Your task to perform on an android device: check data usage Image 0: 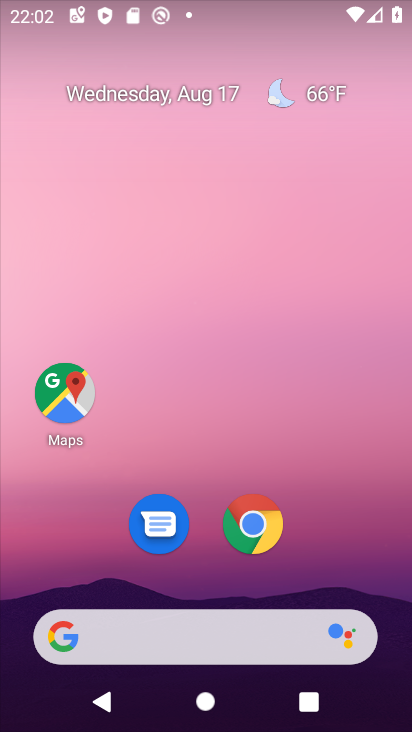
Step 0: drag from (321, 498) to (323, 16)
Your task to perform on an android device: check data usage Image 1: 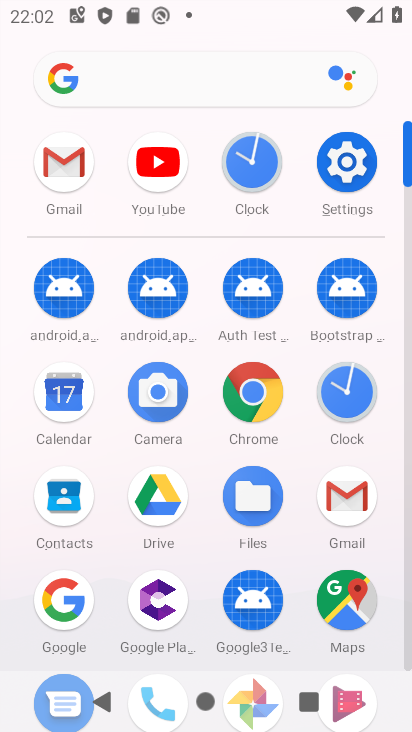
Step 1: click (345, 158)
Your task to perform on an android device: check data usage Image 2: 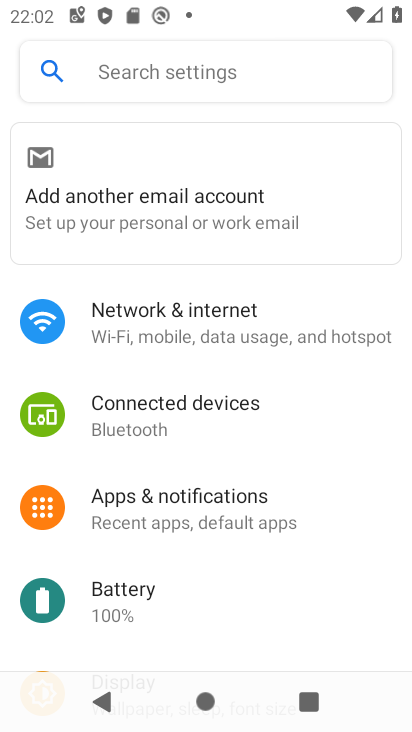
Step 2: click (248, 320)
Your task to perform on an android device: check data usage Image 3: 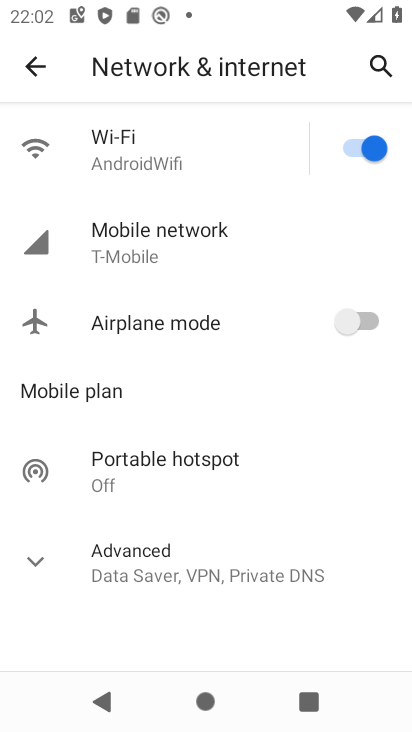
Step 3: click (195, 242)
Your task to perform on an android device: check data usage Image 4: 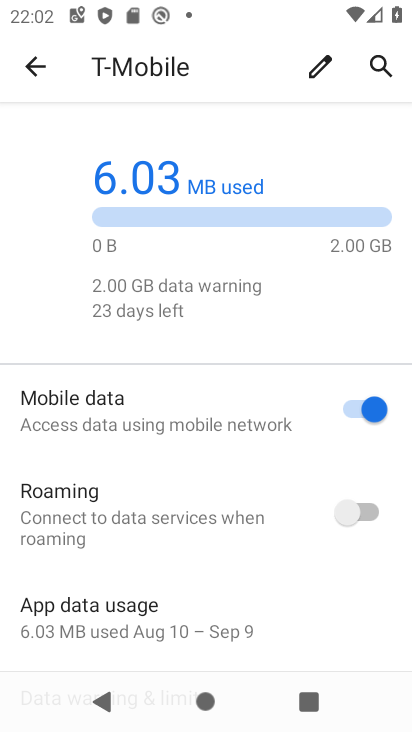
Step 4: task complete